Your task to perform on an android device: change notifications settings Image 0: 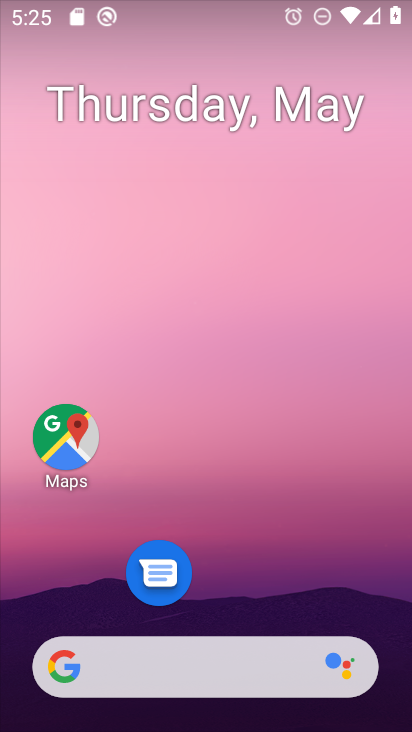
Step 0: drag from (210, 615) to (225, 113)
Your task to perform on an android device: change notifications settings Image 1: 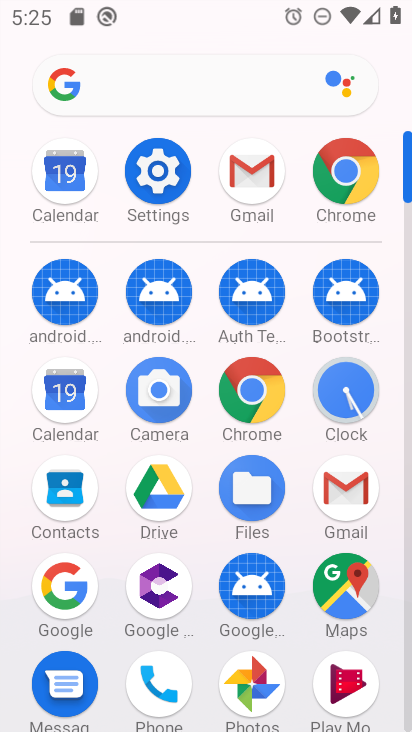
Step 1: click (154, 180)
Your task to perform on an android device: change notifications settings Image 2: 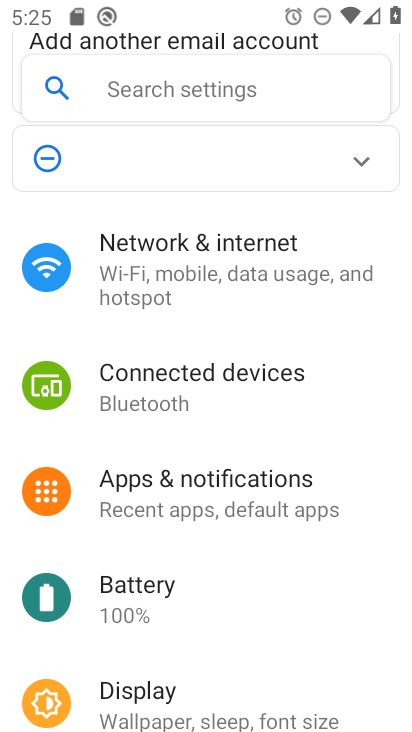
Step 2: click (135, 525)
Your task to perform on an android device: change notifications settings Image 3: 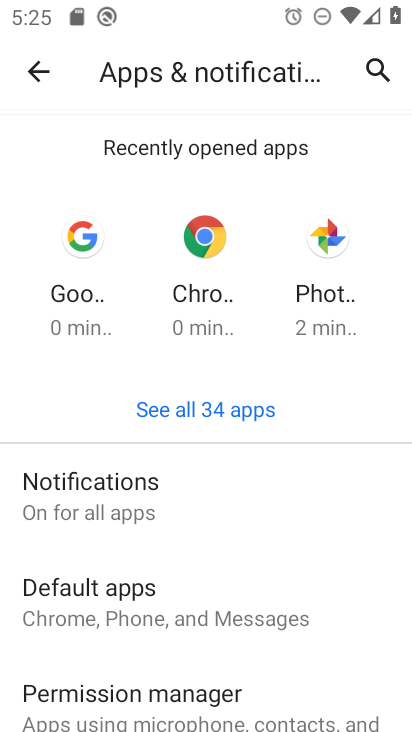
Step 3: click (185, 357)
Your task to perform on an android device: change notifications settings Image 4: 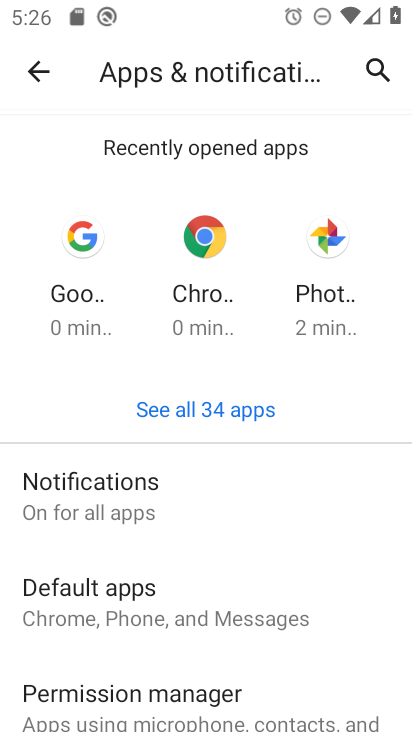
Step 4: drag from (101, 644) to (141, 384)
Your task to perform on an android device: change notifications settings Image 5: 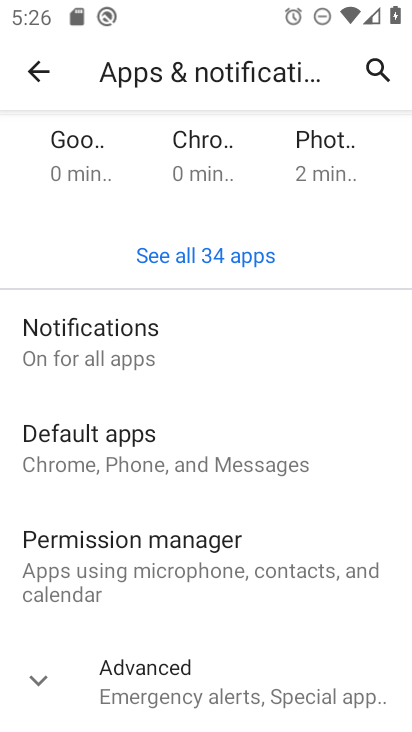
Step 5: drag from (148, 596) to (240, 306)
Your task to perform on an android device: change notifications settings Image 6: 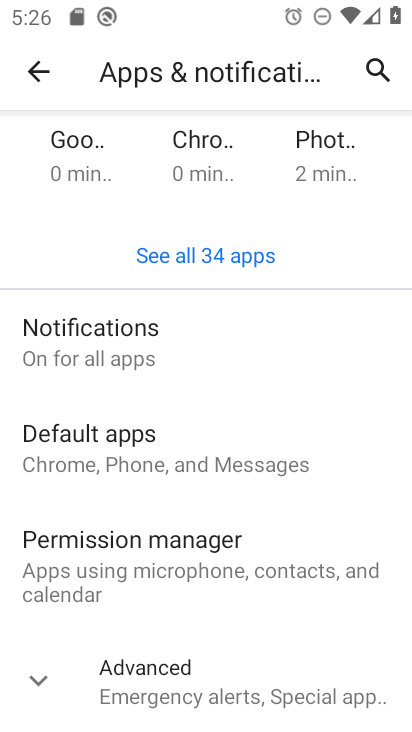
Step 6: click (138, 701)
Your task to perform on an android device: change notifications settings Image 7: 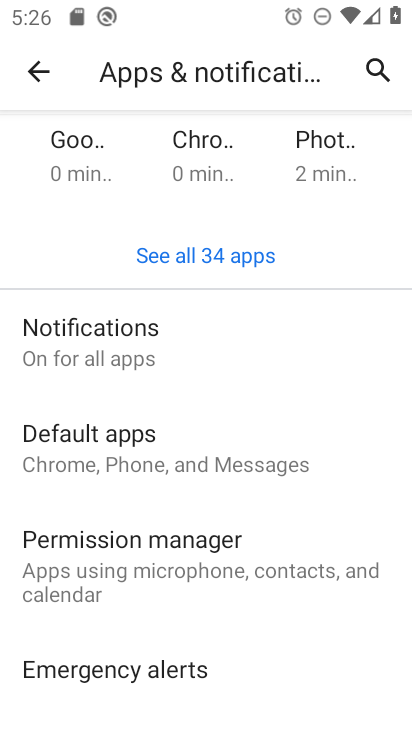
Step 7: click (84, 342)
Your task to perform on an android device: change notifications settings Image 8: 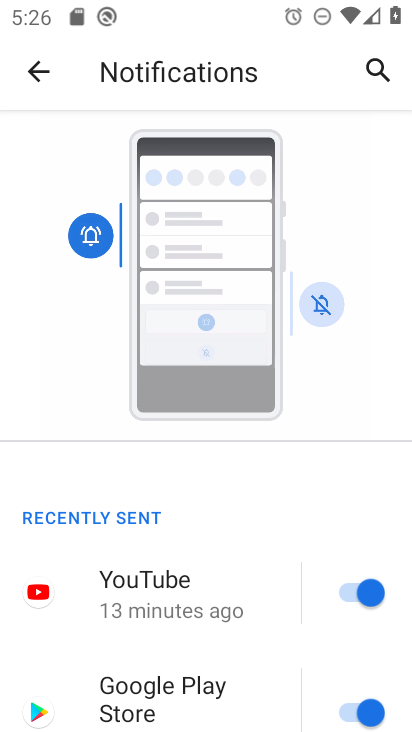
Step 8: drag from (218, 675) to (271, 327)
Your task to perform on an android device: change notifications settings Image 9: 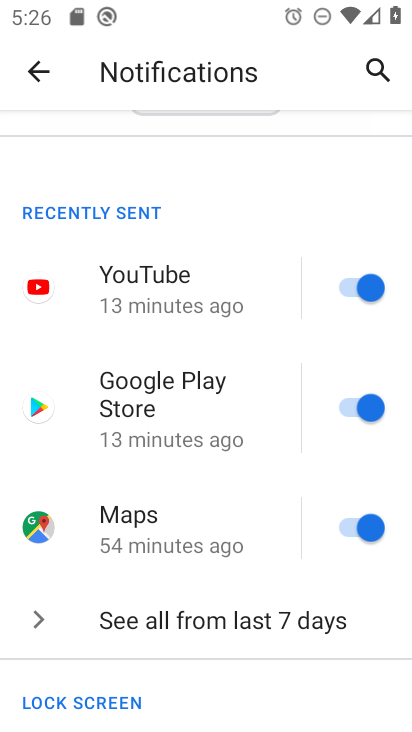
Step 9: drag from (145, 627) to (121, 307)
Your task to perform on an android device: change notifications settings Image 10: 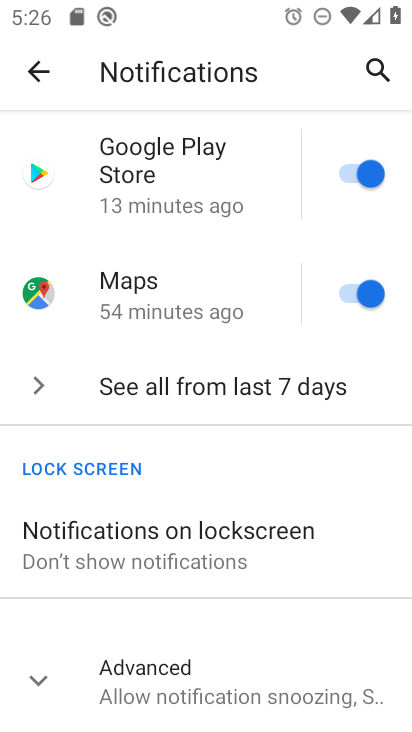
Step 10: click (158, 563)
Your task to perform on an android device: change notifications settings Image 11: 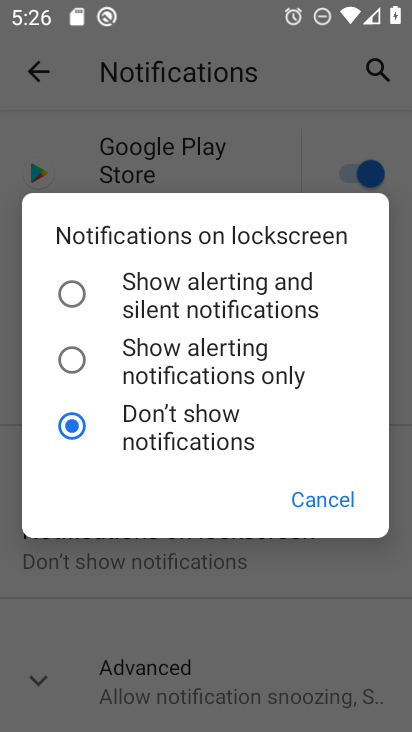
Step 11: click (66, 303)
Your task to perform on an android device: change notifications settings Image 12: 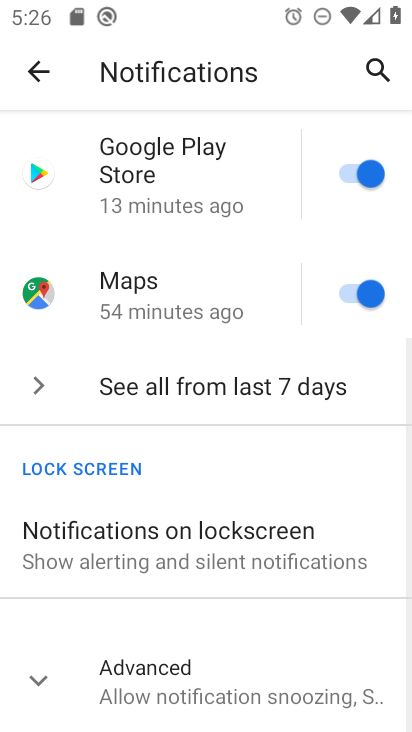
Step 12: task complete